Your task to perform on an android device: Install the Google app Image 0: 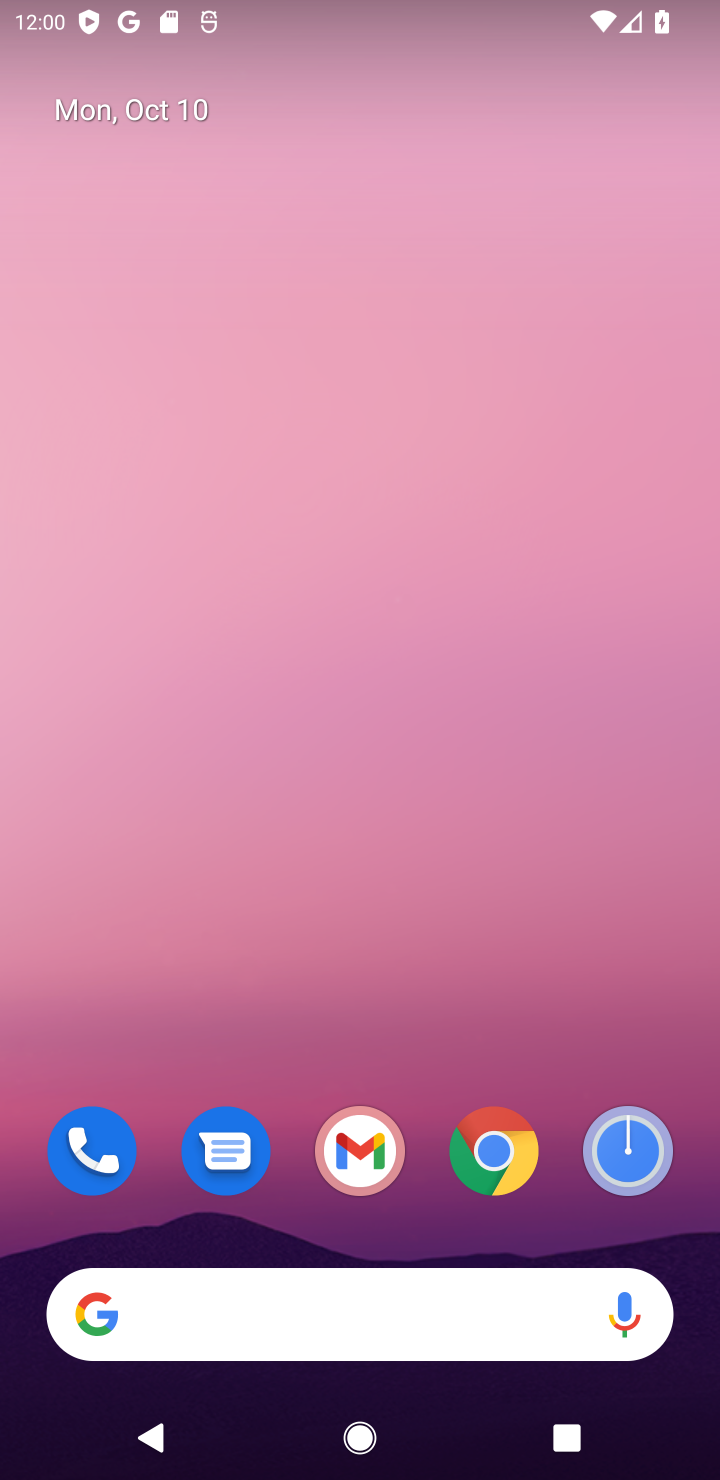
Step 0: drag from (419, 1236) to (151, 469)
Your task to perform on an android device: Install the Google app Image 1: 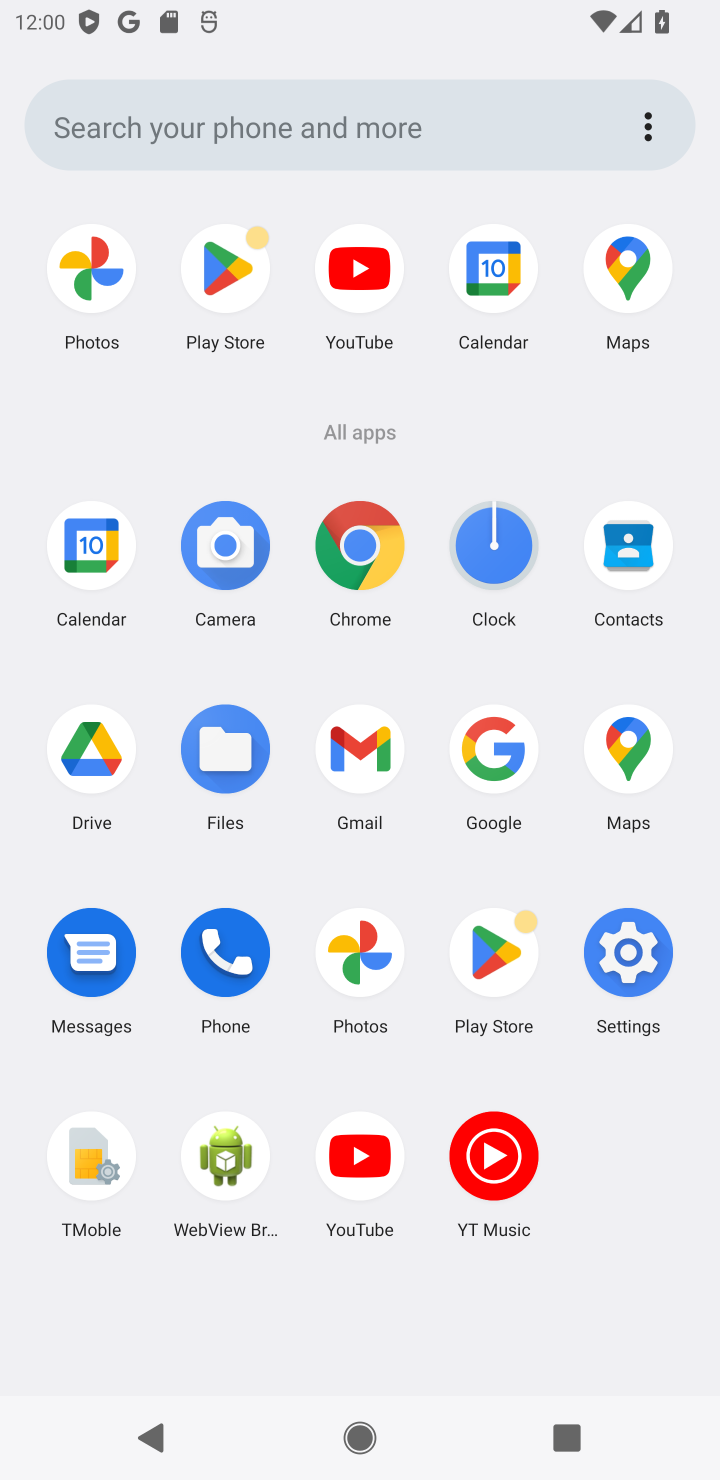
Step 1: click (237, 266)
Your task to perform on an android device: Install the Google app Image 2: 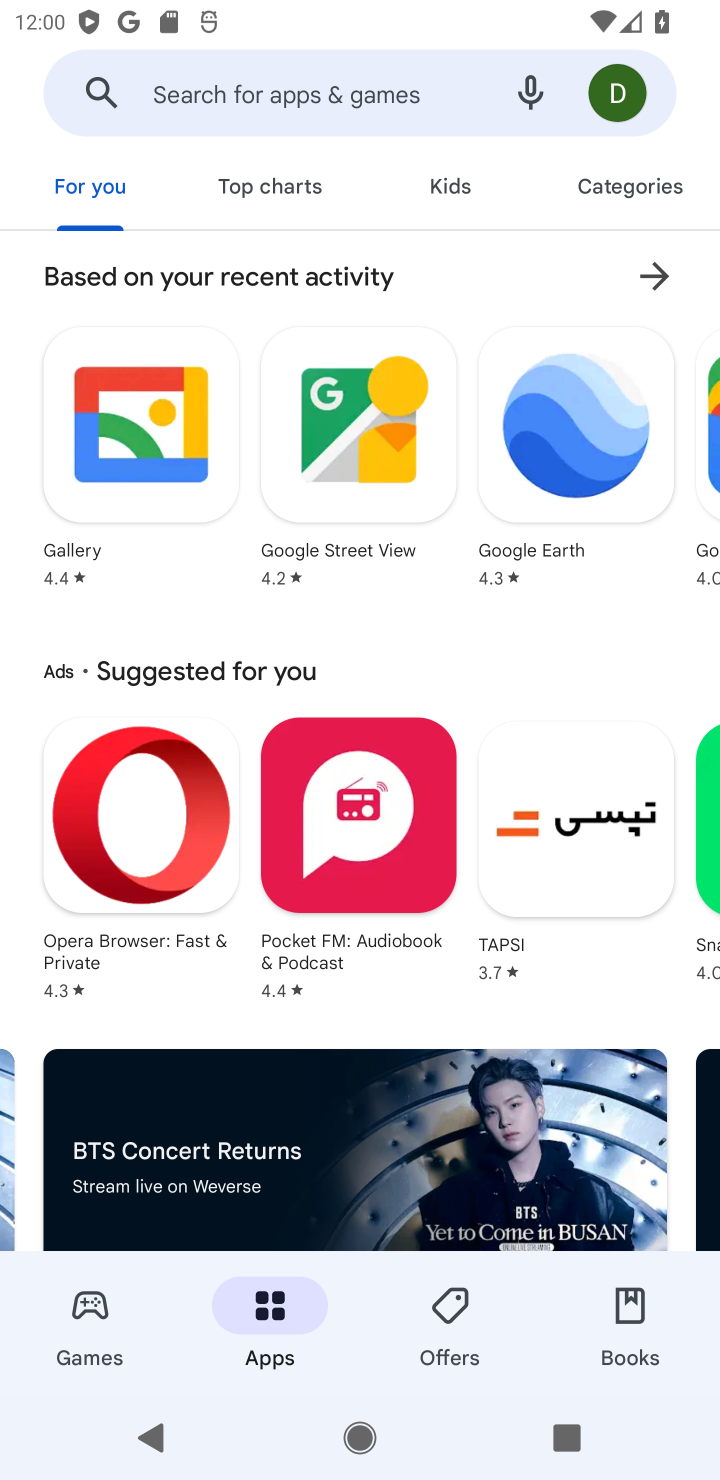
Step 2: click (189, 91)
Your task to perform on an android device: Install the Google app Image 3: 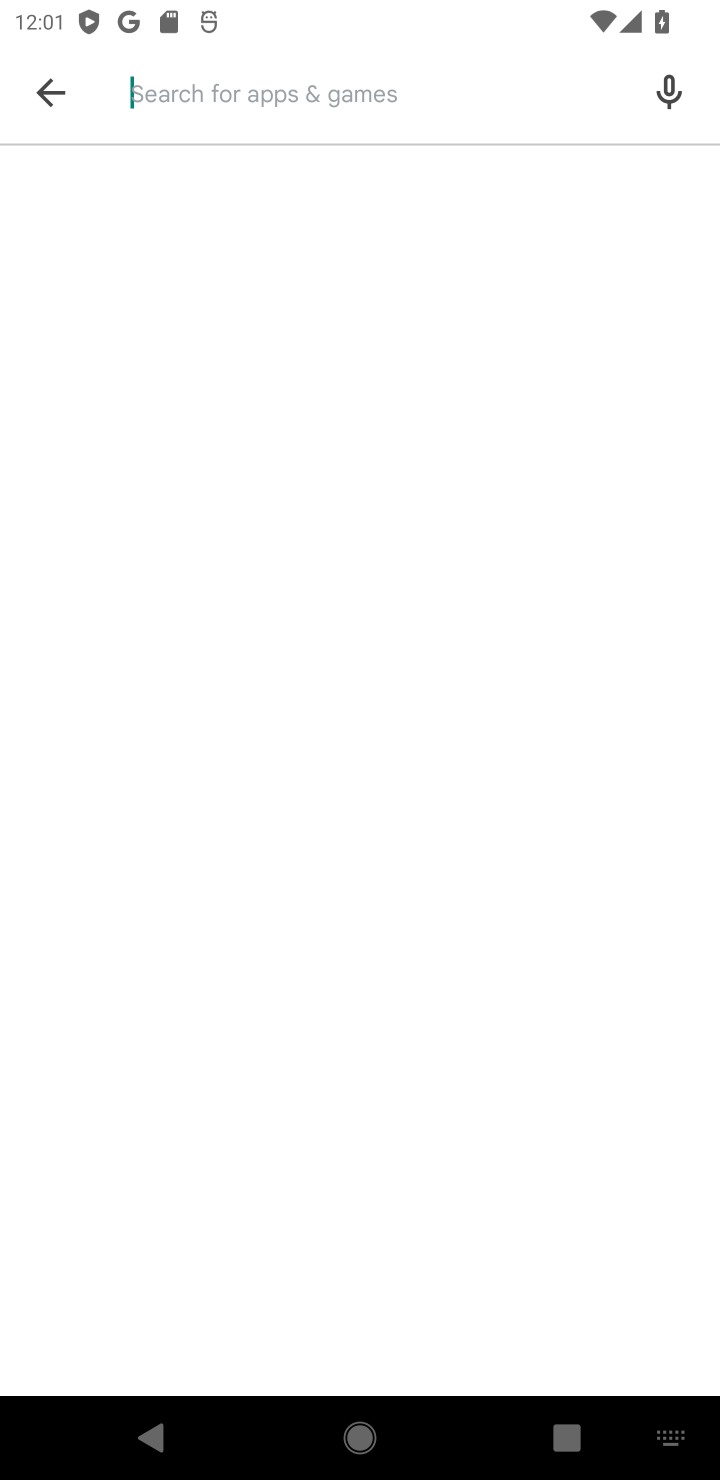
Step 3: type "google app"
Your task to perform on an android device: Install the Google app Image 4: 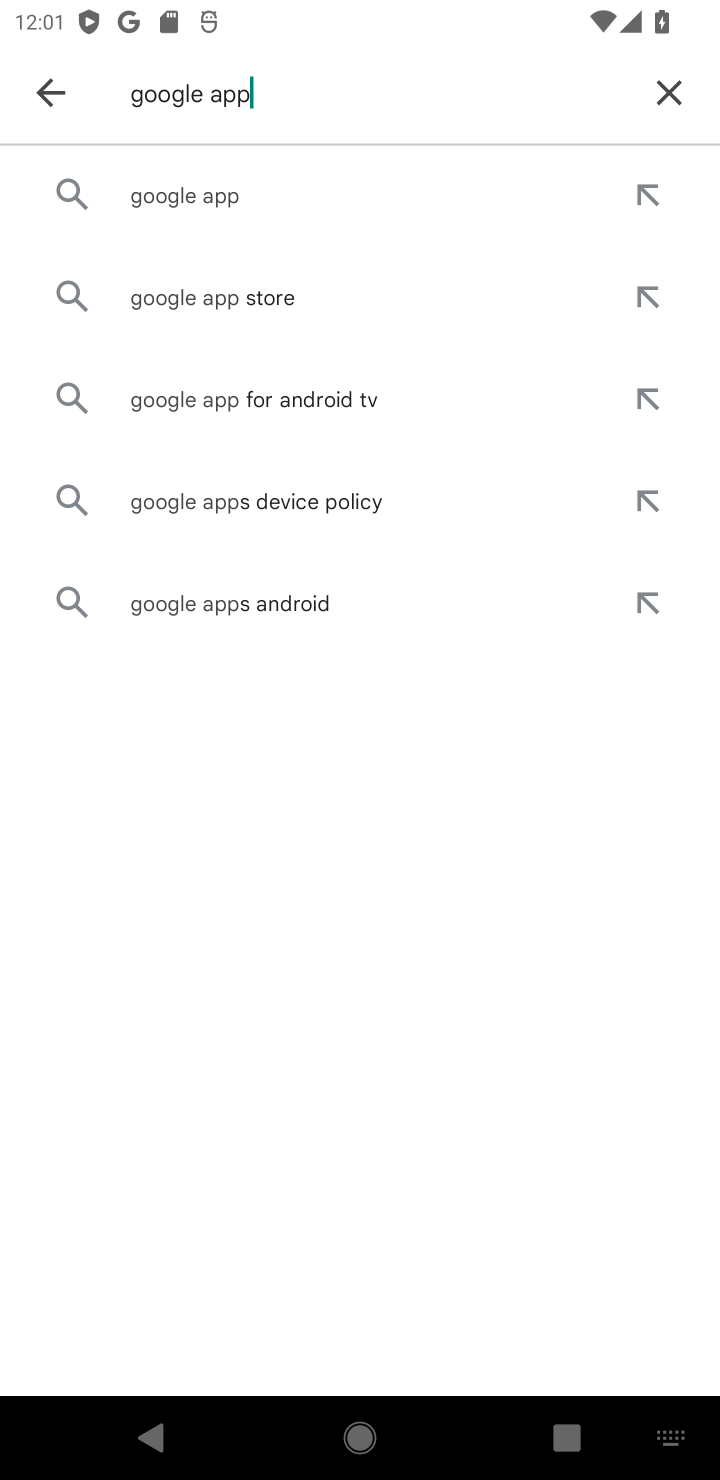
Step 4: click (181, 197)
Your task to perform on an android device: Install the Google app Image 5: 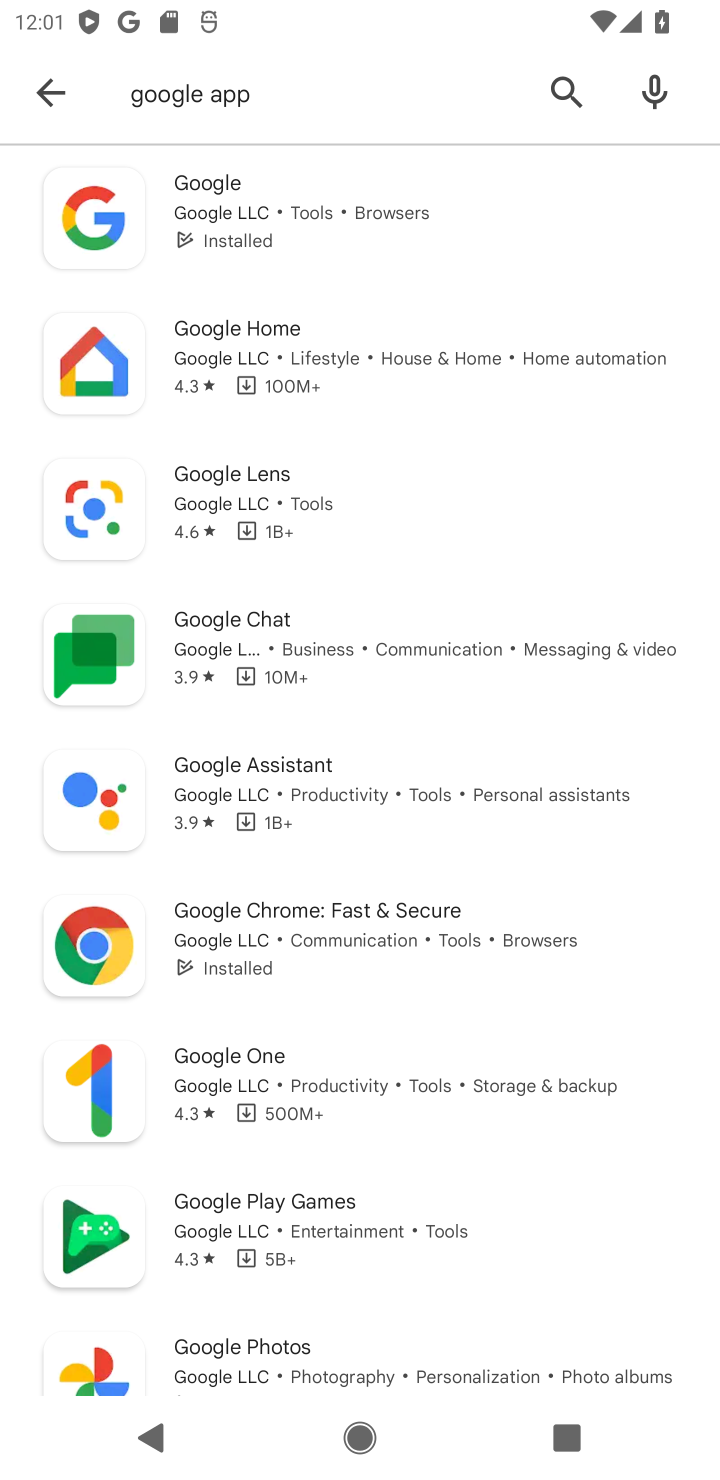
Step 5: click (217, 181)
Your task to perform on an android device: Install the Google app Image 6: 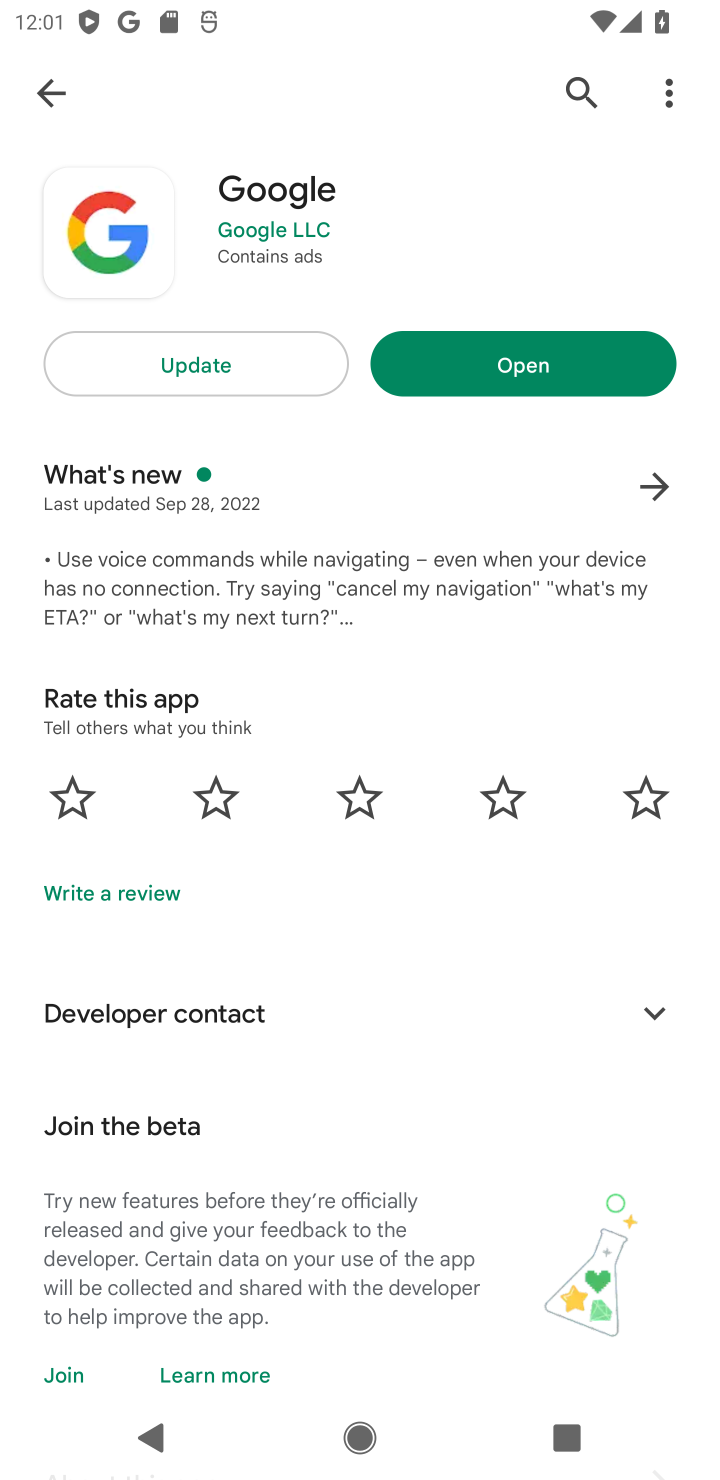
Step 6: click (233, 363)
Your task to perform on an android device: Install the Google app Image 7: 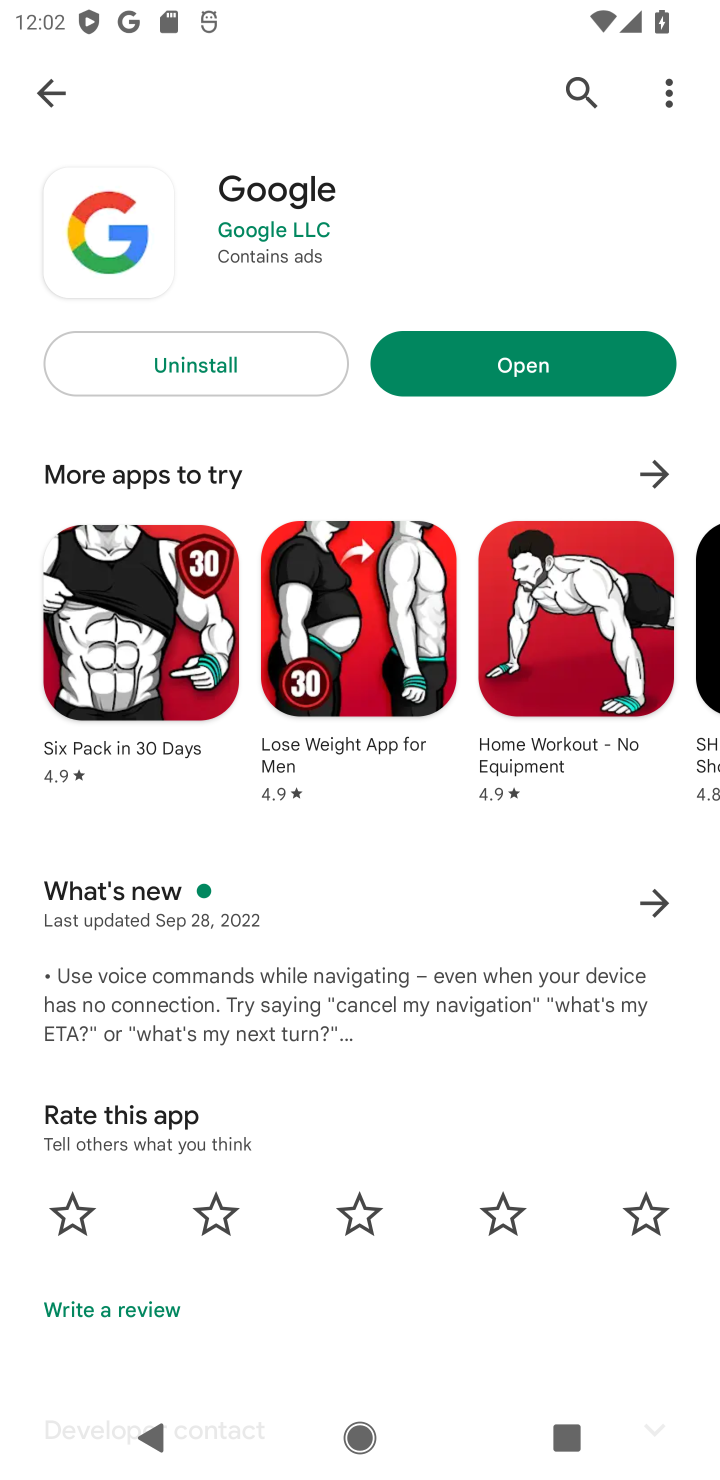
Step 7: task complete